Your task to perform on an android device: turn on the 24-hour format for clock Image 0: 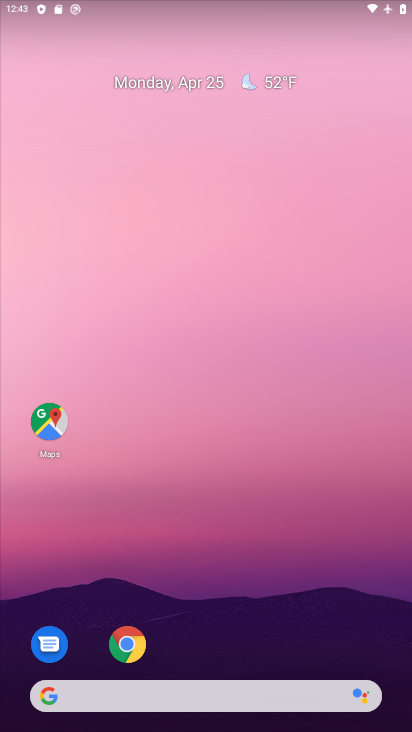
Step 0: drag from (230, 631) to (191, 20)
Your task to perform on an android device: turn on the 24-hour format for clock Image 1: 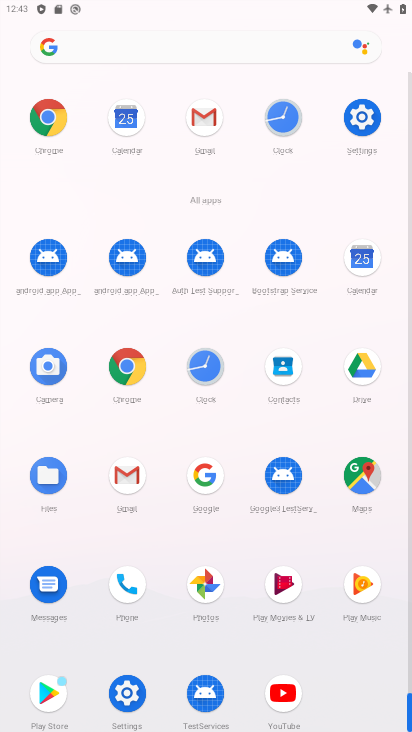
Step 1: click (288, 119)
Your task to perform on an android device: turn on the 24-hour format for clock Image 2: 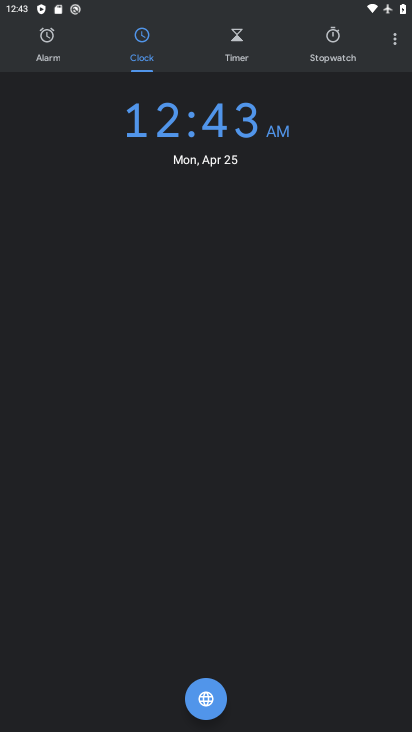
Step 2: click (397, 47)
Your task to perform on an android device: turn on the 24-hour format for clock Image 3: 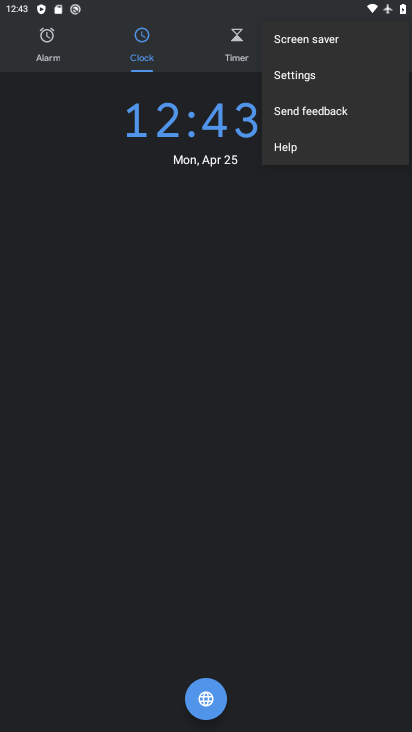
Step 3: click (344, 79)
Your task to perform on an android device: turn on the 24-hour format for clock Image 4: 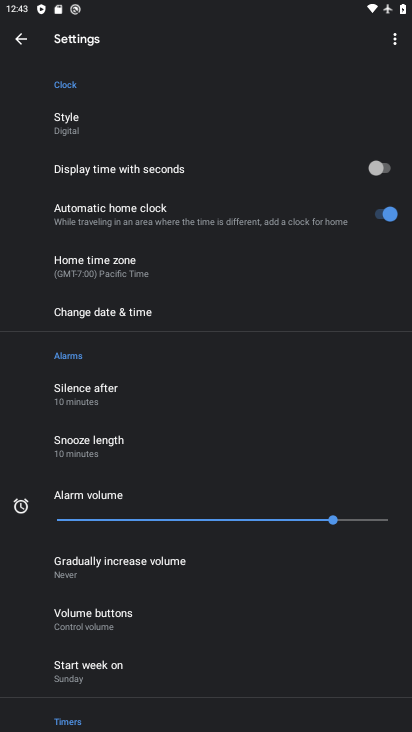
Step 4: task complete